Your task to perform on an android device: Look up the best rated headphones on Walmart. Image 0: 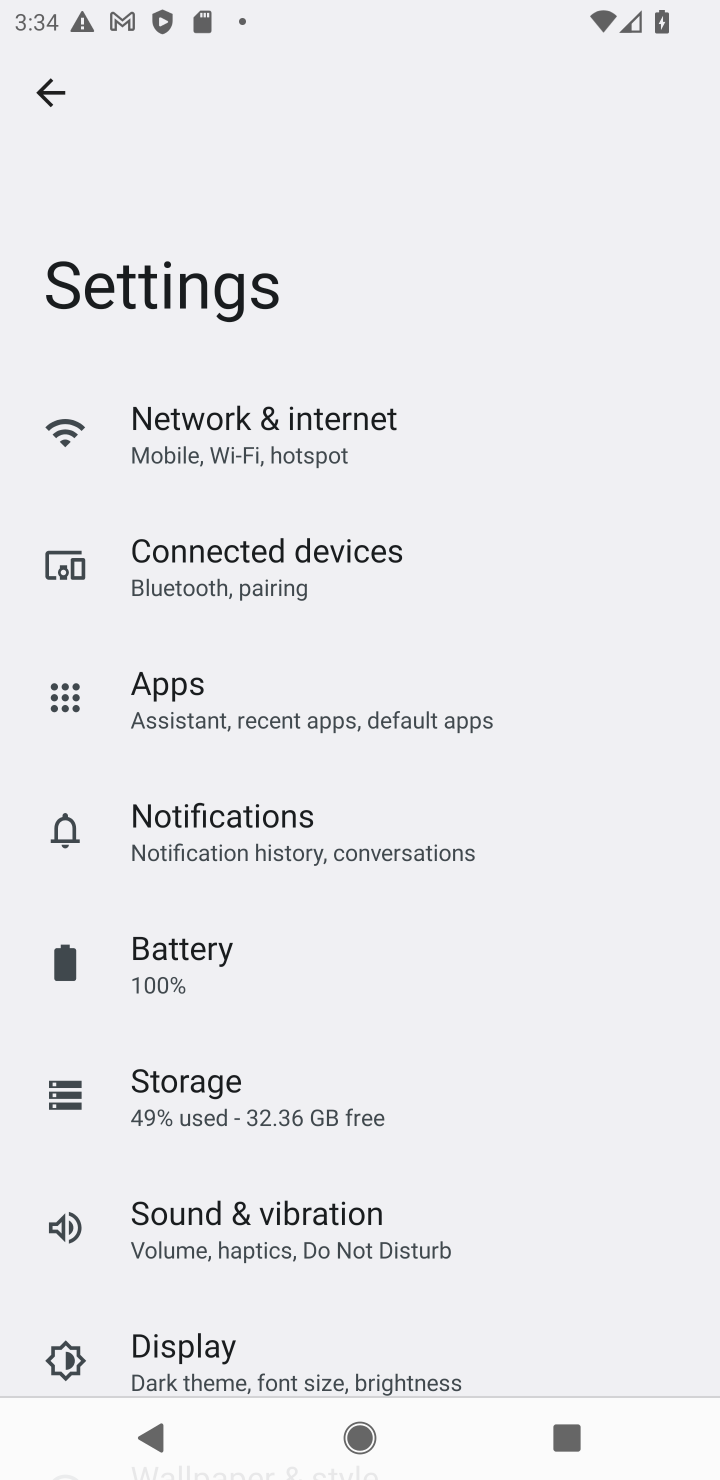
Step 0: press home button
Your task to perform on an android device: Look up the best rated headphones on Walmart. Image 1: 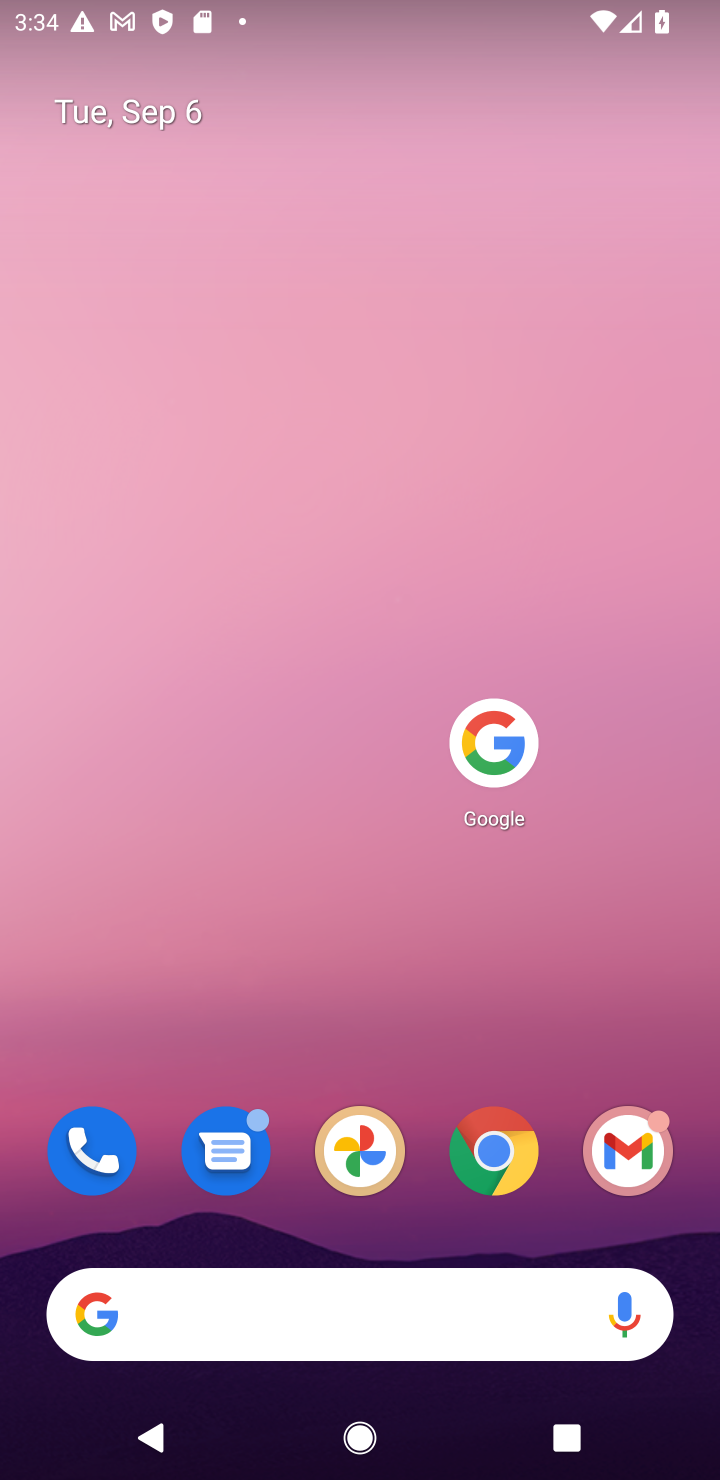
Step 1: click (491, 729)
Your task to perform on an android device: Look up the best rated headphones on Walmart. Image 2: 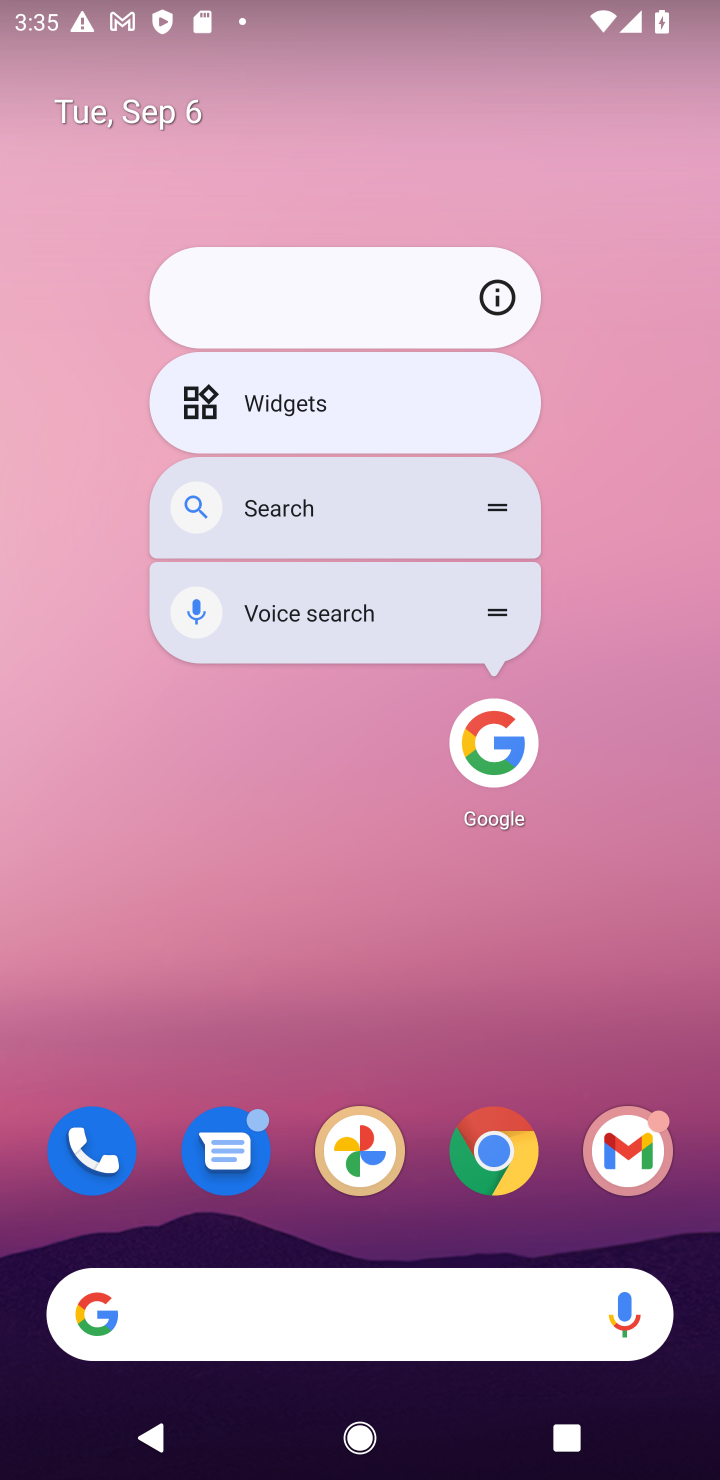
Step 2: click (482, 732)
Your task to perform on an android device: Look up the best rated headphones on Walmart. Image 3: 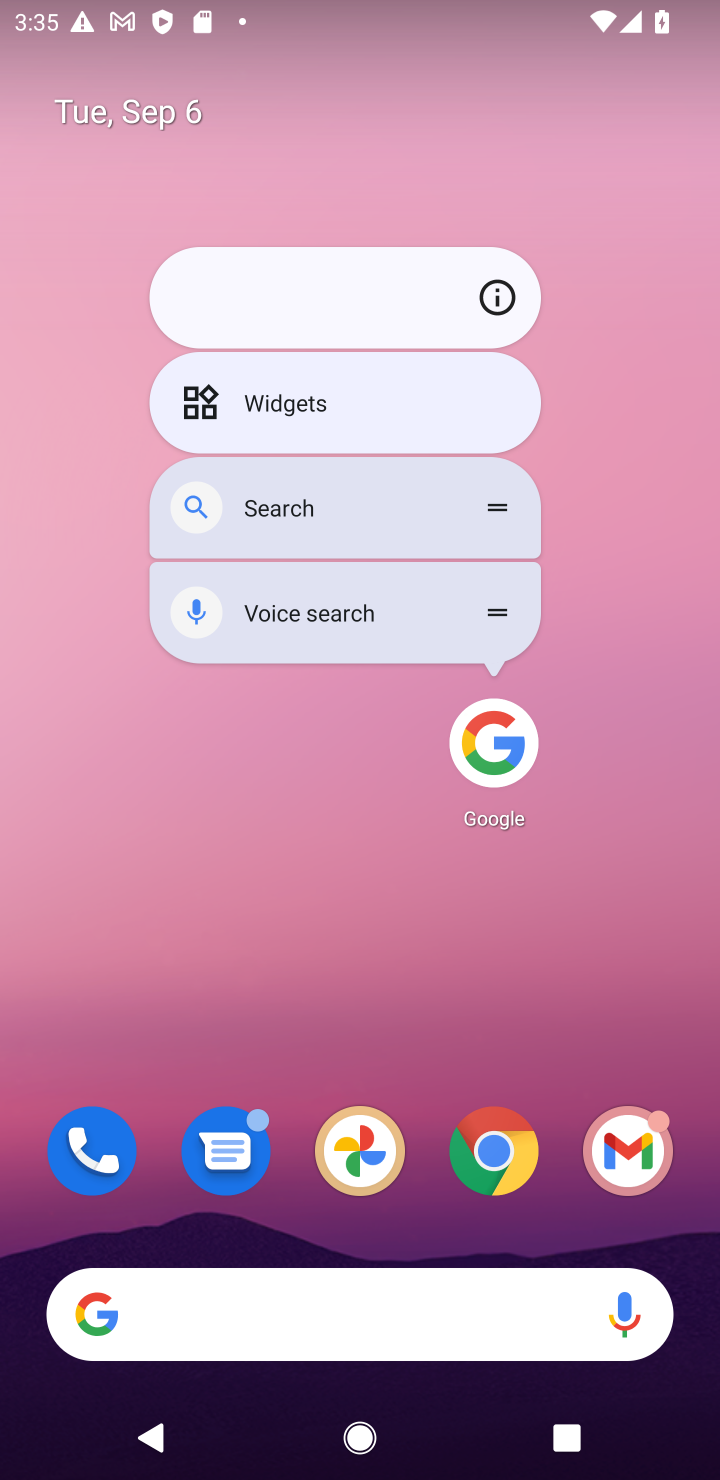
Step 3: click (482, 732)
Your task to perform on an android device: Look up the best rated headphones on Walmart. Image 4: 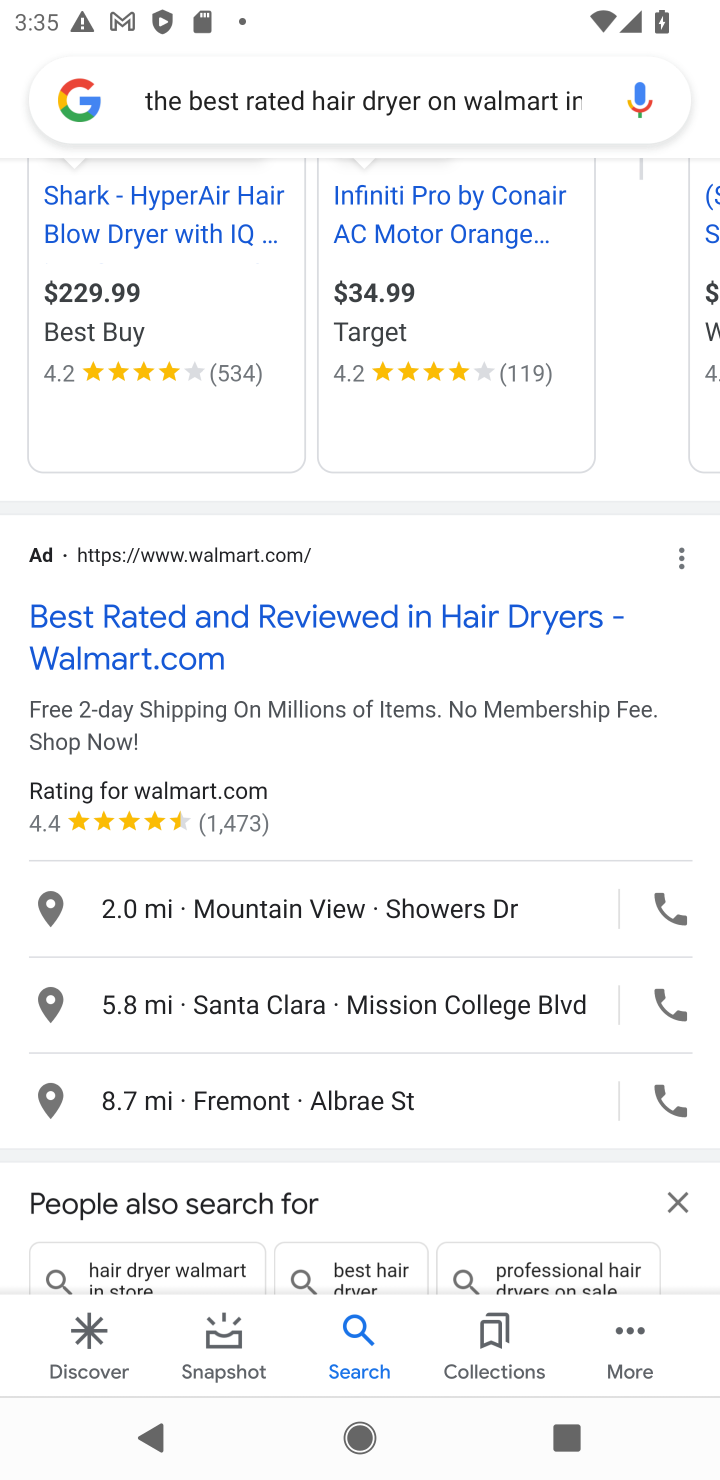
Step 4: click (436, 89)
Your task to perform on an android device: Look up the best rated headphones on Walmart. Image 5: 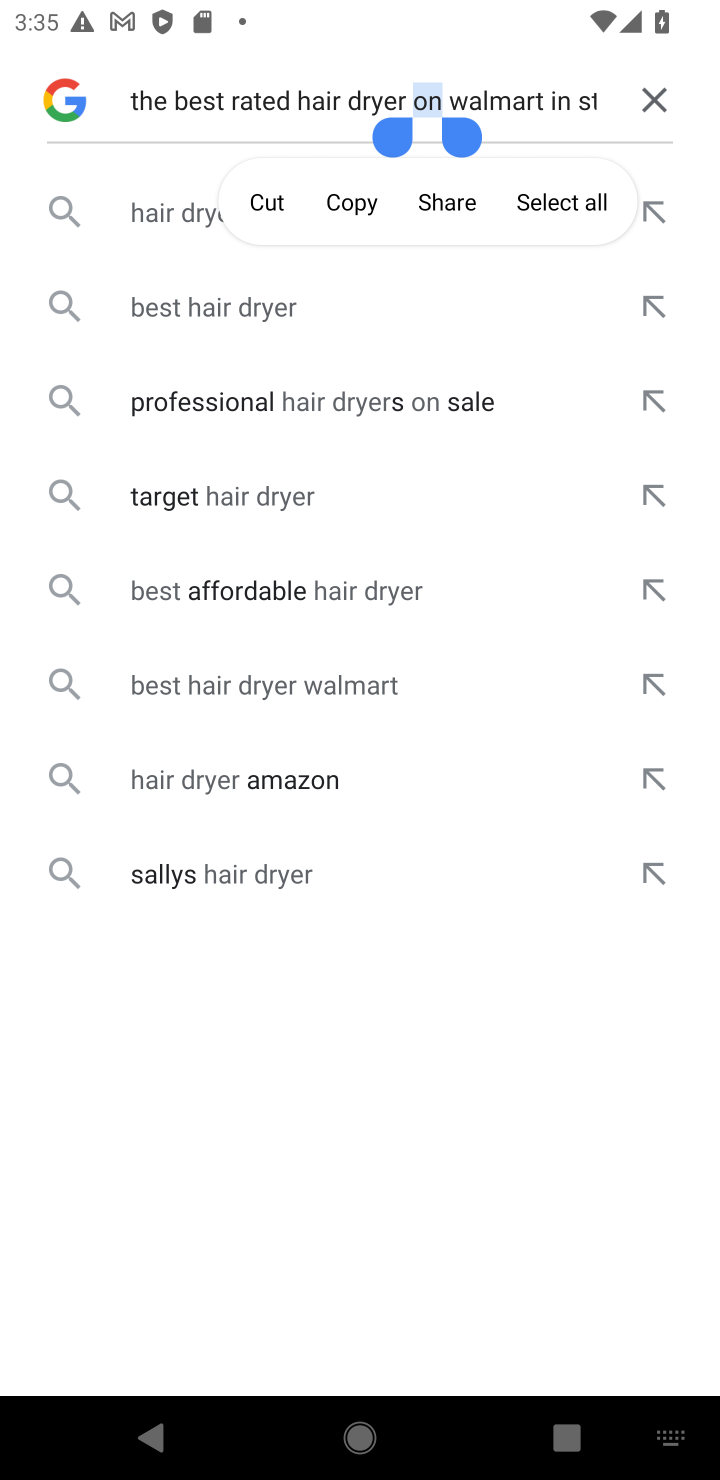
Step 5: click (646, 88)
Your task to perform on an android device: Look up the best rated headphones on Walmart. Image 6: 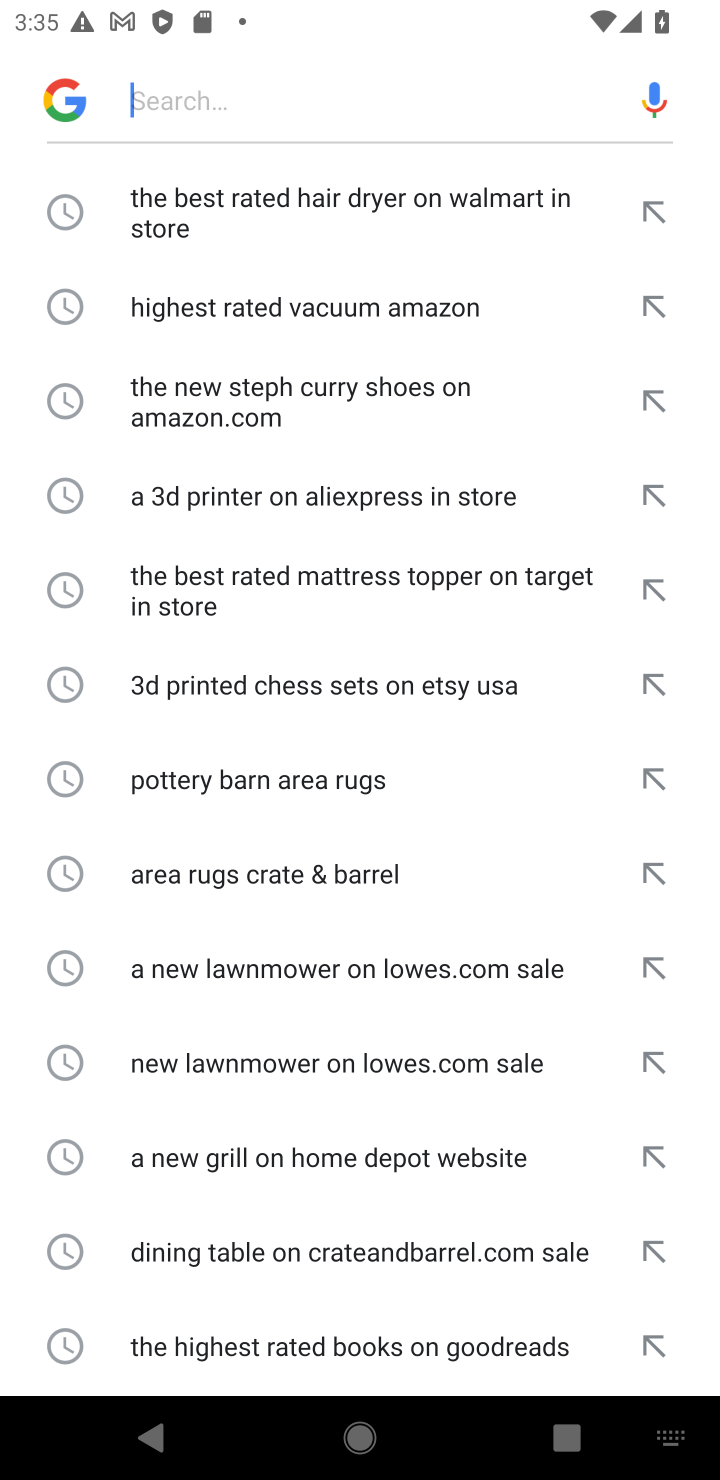
Step 6: click (312, 109)
Your task to perform on an android device: Look up the best rated headphones on Walmart. Image 7: 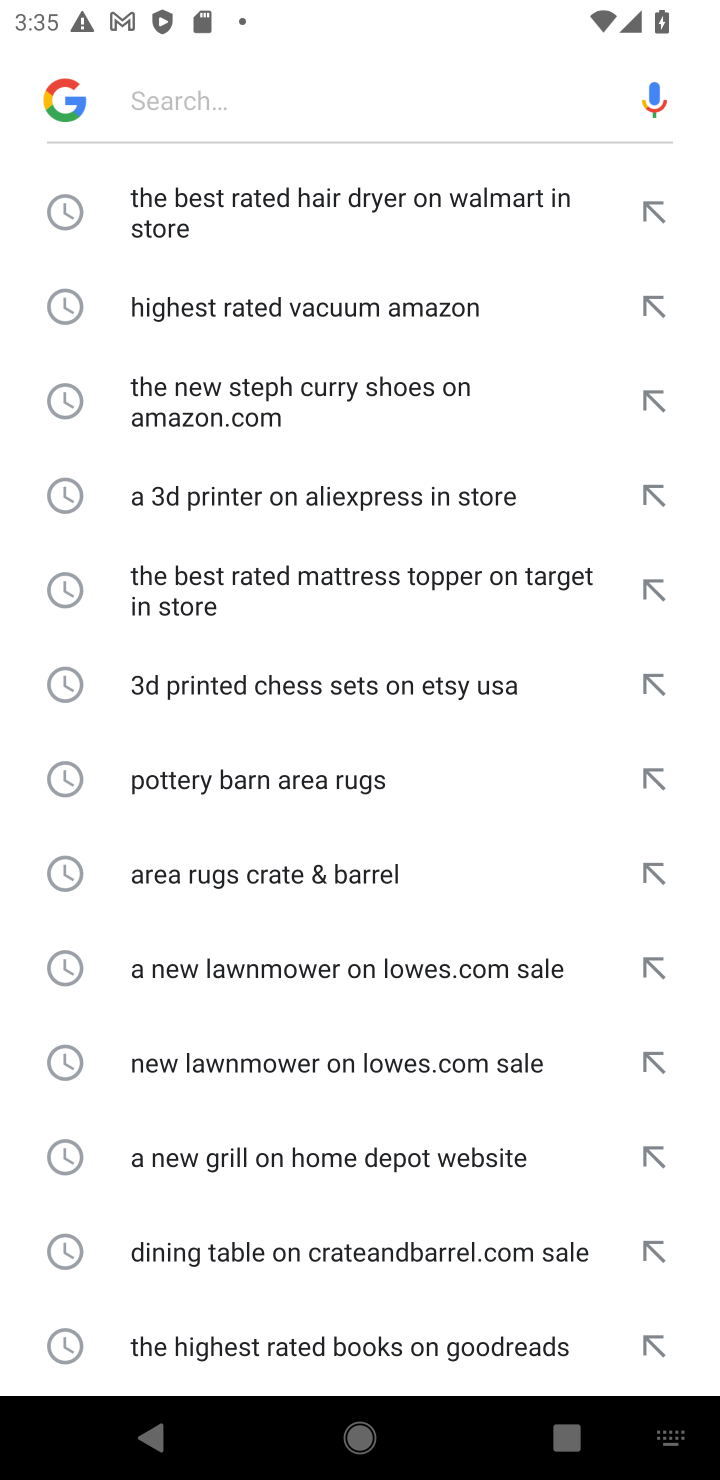
Step 7: type "the best rated headphones on Walmart "
Your task to perform on an android device: Look up the best rated headphones on Walmart. Image 8: 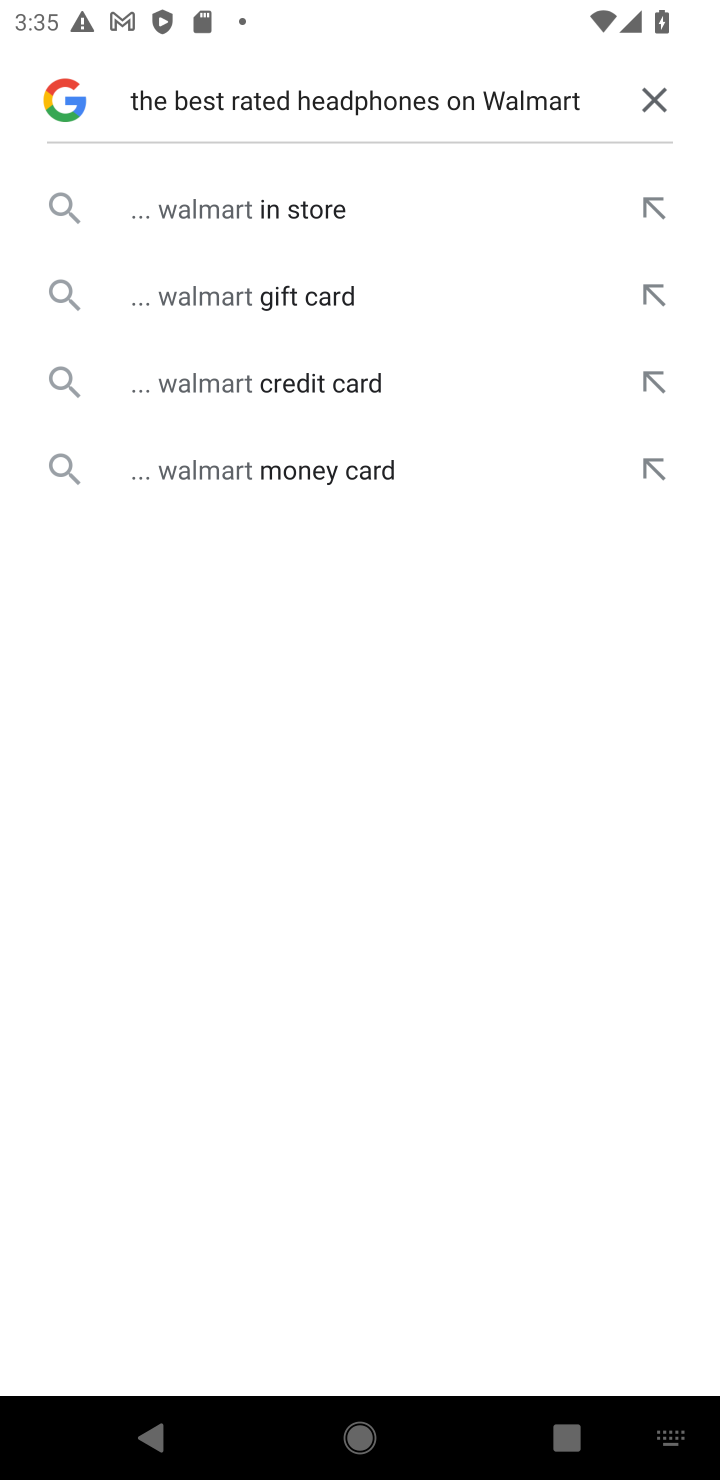
Step 8: click (287, 204)
Your task to perform on an android device: Look up the best rated headphones on Walmart. Image 9: 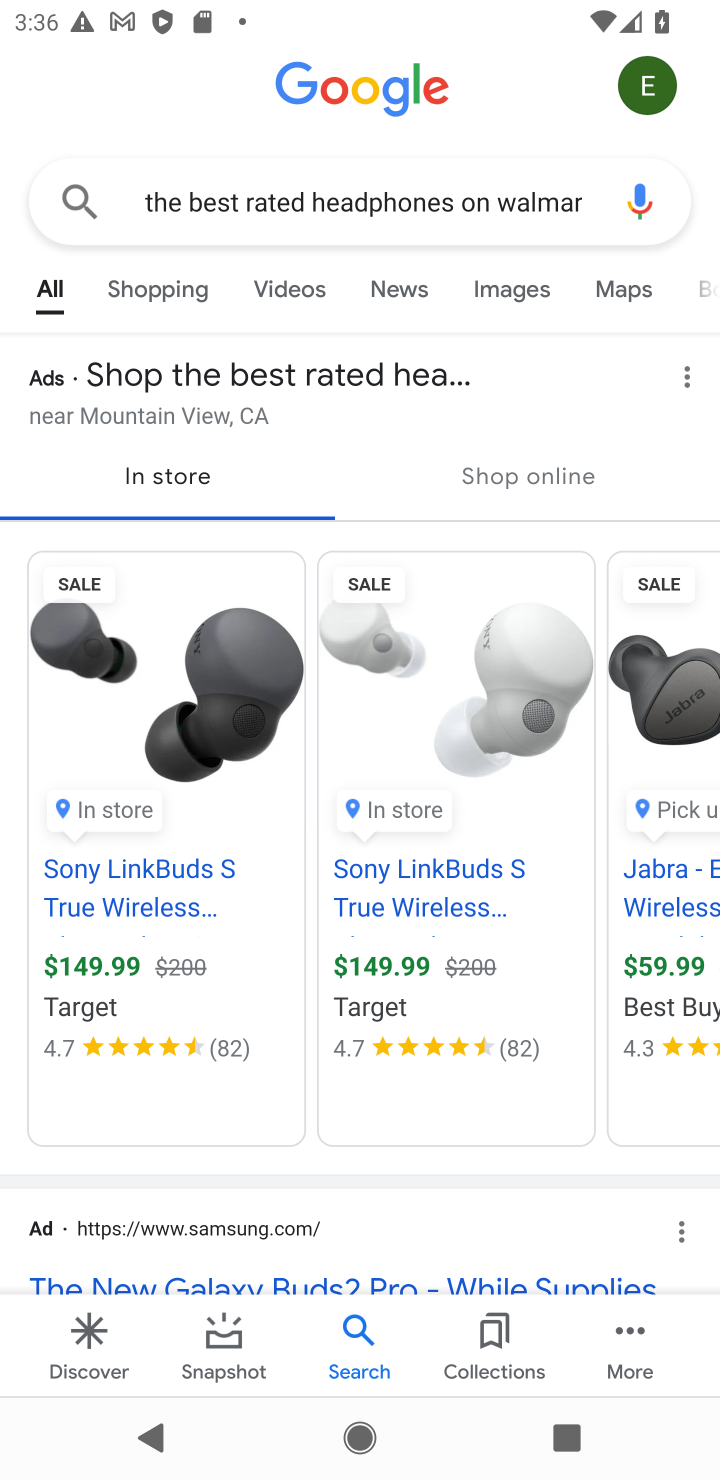
Step 9: task complete